Your task to perform on an android device: turn vacation reply on in the gmail app Image 0: 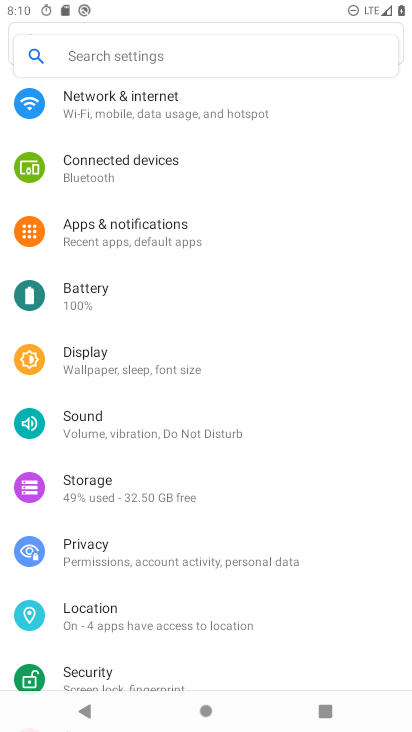
Step 0: press home button
Your task to perform on an android device: turn vacation reply on in the gmail app Image 1: 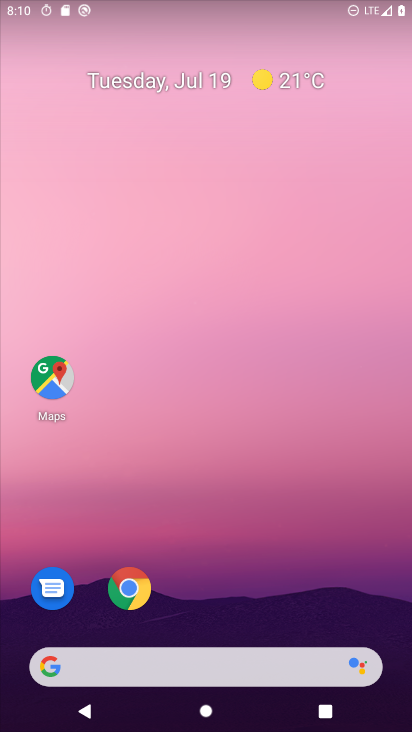
Step 1: drag from (302, 563) to (301, 203)
Your task to perform on an android device: turn vacation reply on in the gmail app Image 2: 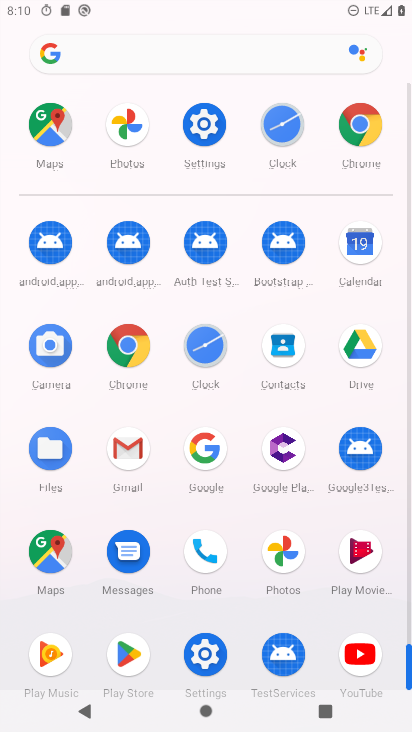
Step 2: click (131, 467)
Your task to perform on an android device: turn vacation reply on in the gmail app Image 3: 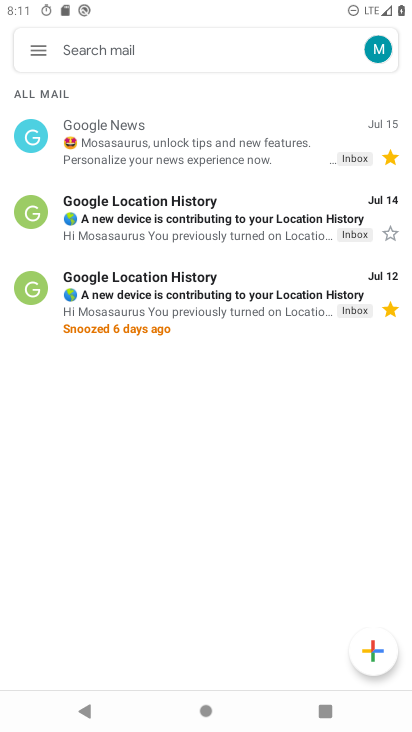
Step 3: click (39, 57)
Your task to perform on an android device: turn vacation reply on in the gmail app Image 4: 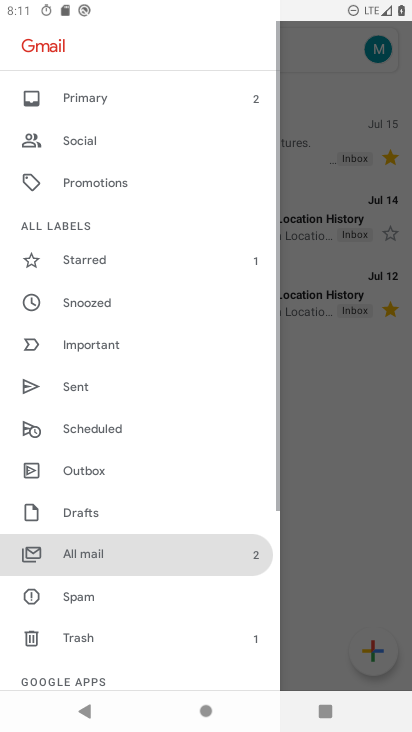
Step 4: drag from (83, 617) to (103, 330)
Your task to perform on an android device: turn vacation reply on in the gmail app Image 5: 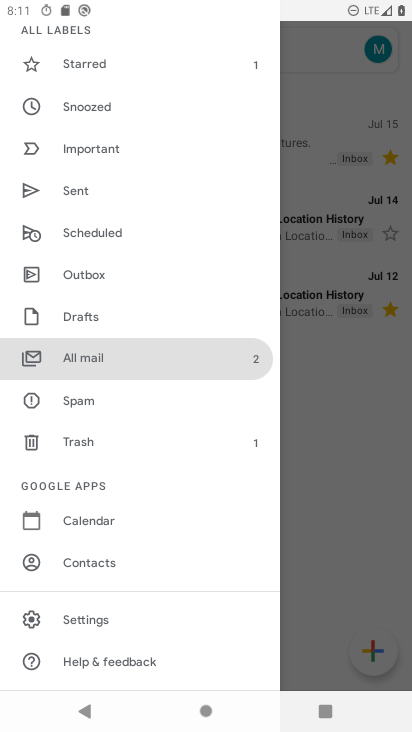
Step 5: click (99, 630)
Your task to perform on an android device: turn vacation reply on in the gmail app Image 6: 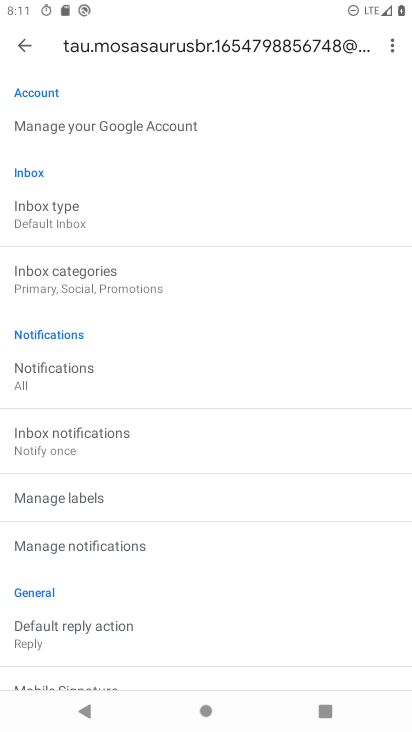
Step 6: drag from (130, 423) to (193, 139)
Your task to perform on an android device: turn vacation reply on in the gmail app Image 7: 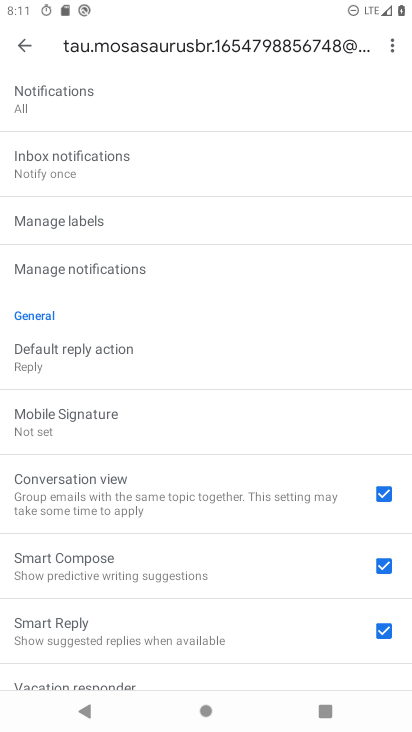
Step 7: drag from (155, 569) to (139, 247)
Your task to perform on an android device: turn vacation reply on in the gmail app Image 8: 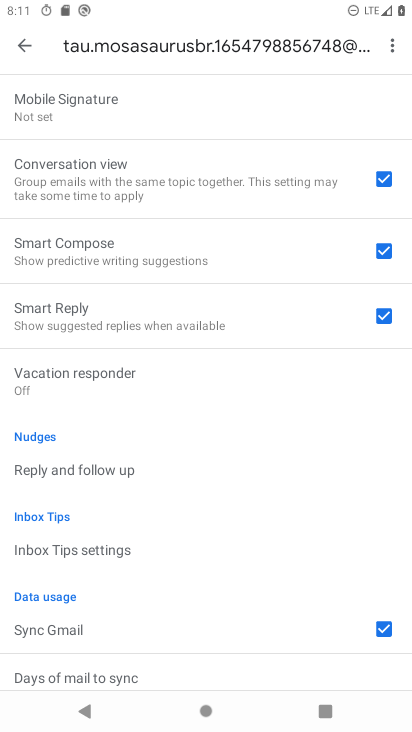
Step 8: click (123, 384)
Your task to perform on an android device: turn vacation reply on in the gmail app Image 9: 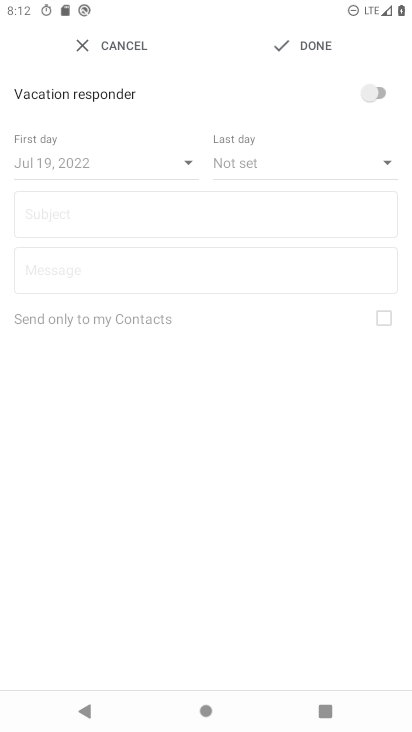
Step 9: click (305, 50)
Your task to perform on an android device: turn vacation reply on in the gmail app Image 10: 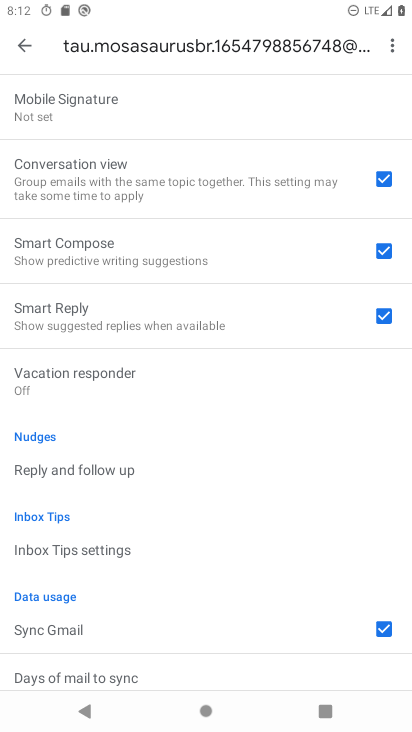
Step 10: task complete